Your task to perform on an android device: toggle notification dots Image 0: 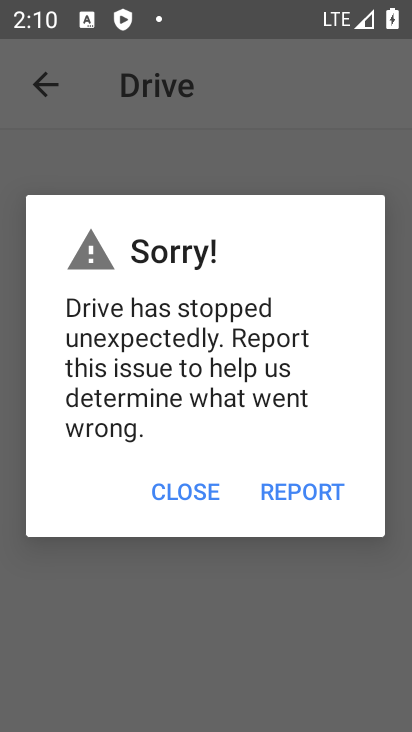
Step 0: press home button
Your task to perform on an android device: toggle notification dots Image 1: 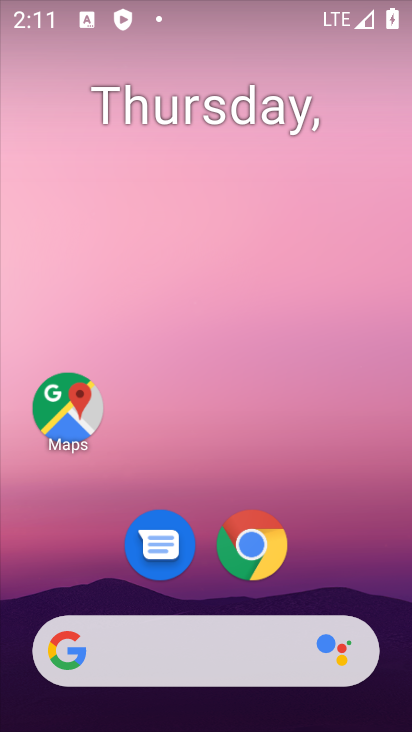
Step 1: drag from (174, 602) to (186, 12)
Your task to perform on an android device: toggle notification dots Image 2: 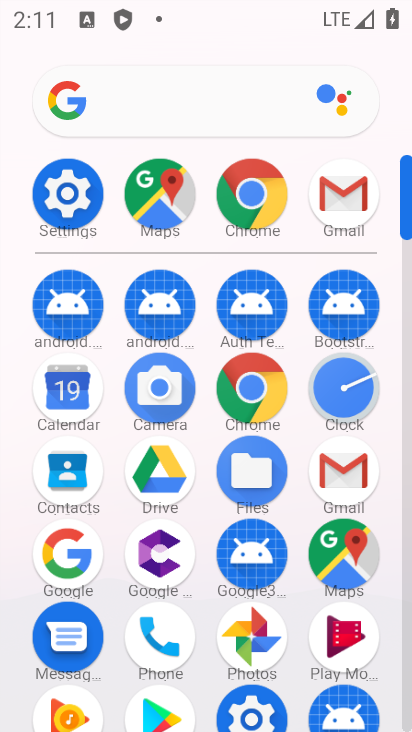
Step 2: click (75, 193)
Your task to perform on an android device: toggle notification dots Image 3: 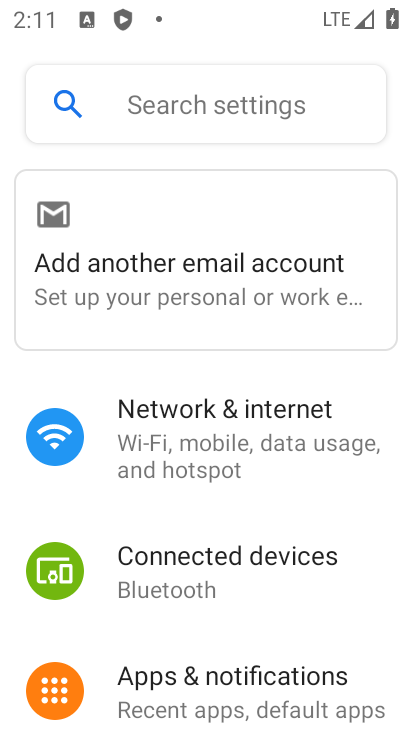
Step 3: click (259, 681)
Your task to perform on an android device: toggle notification dots Image 4: 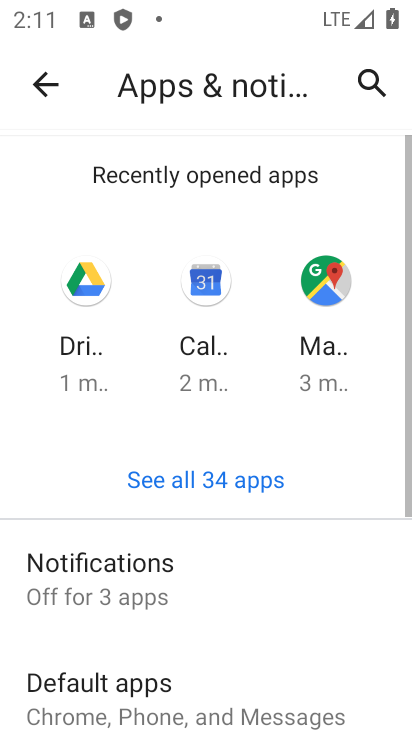
Step 4: drag from (265, 680) to (298, 151)
Your task to perform on an android device: toggle notification dots Image 5: 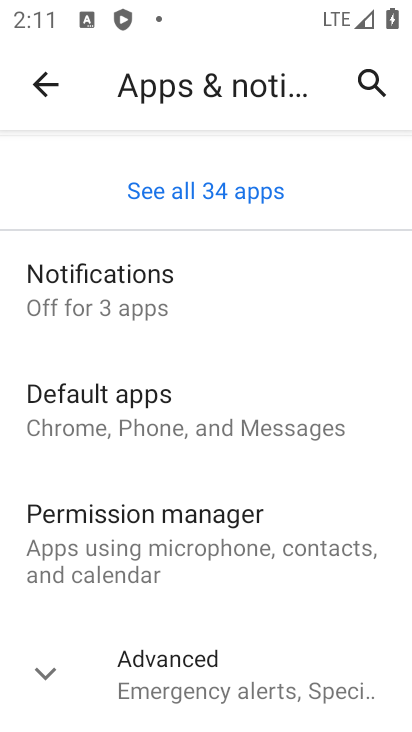
Step 5: click (156, 305)
Your task to perform on an android device: toggle notification dots Image 6: 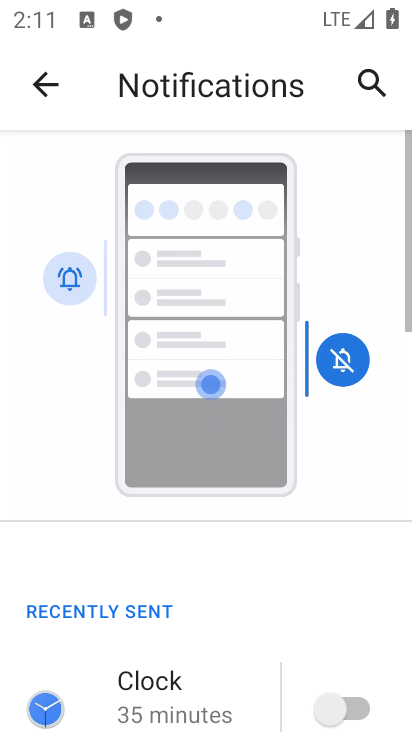
Step 6: drag from (256, 628) to (281, 83)
Your task to perform on an android device: toggle notification dots Image 7: 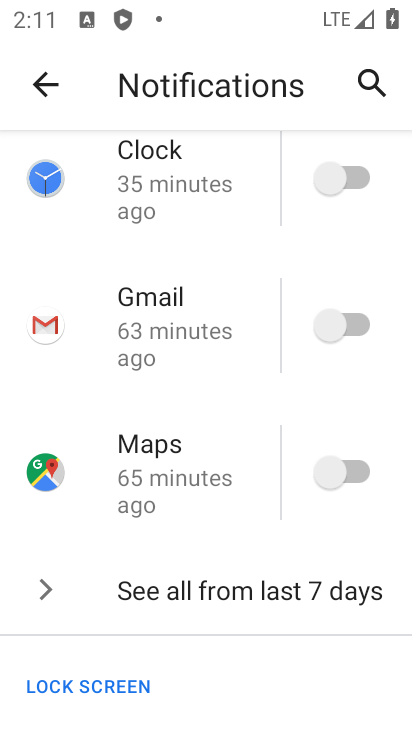
Step 7: drag from (227, 619) to (249, 53)
Your task to perform on an android device: toggle notification dots Image 8: 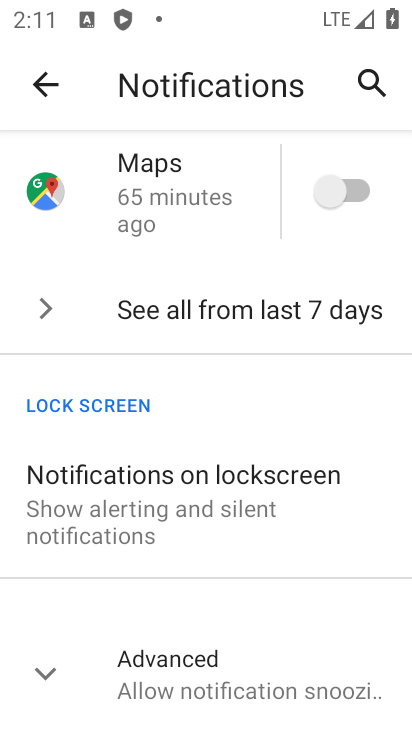
Step 8: click (279, 671)
Your task to perform on an android device: toggle notification dots Image 9: 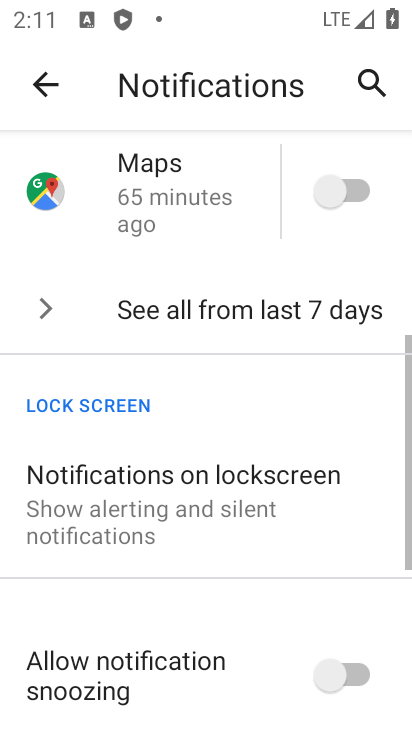
Step 9: drag from (279, 658) to (260, 195)
Your task to perform on an android device: toggle notification dots Image 10: 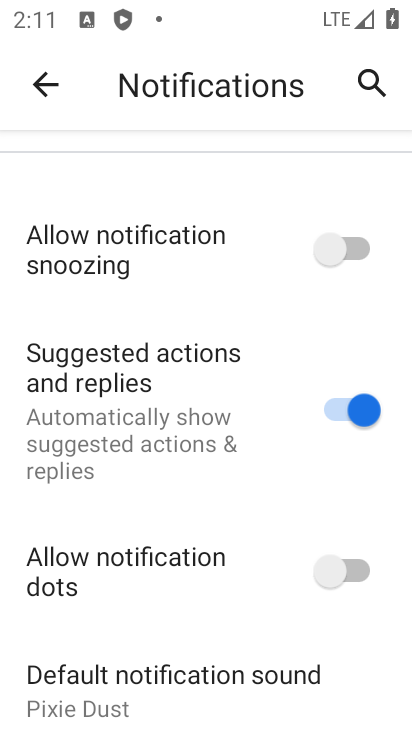
Step 10: click (358, 563)
Your task to perform on an android device: toggle notification dots Image 11: 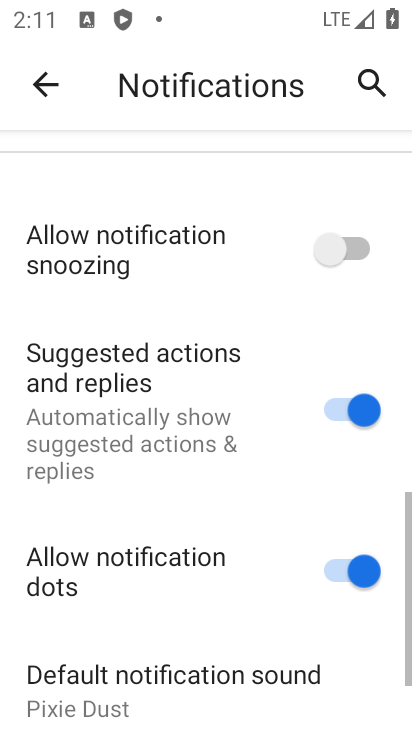
Step 11: task complete